Your task to perform on an android device: Open location settings Image 0: 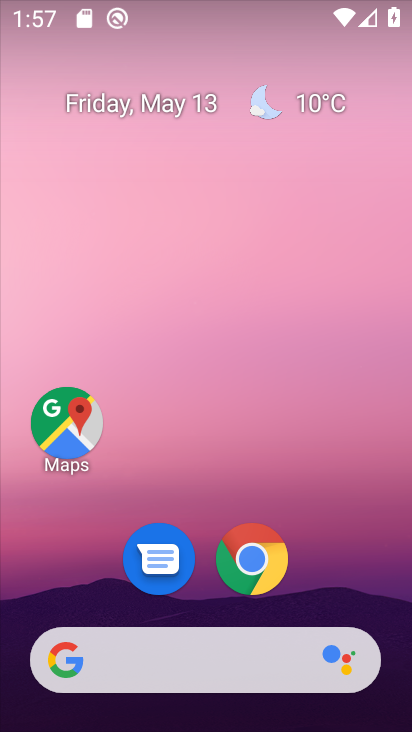
Step 0: drag from (389, 576) to (364, 363)
Your task to perform on an android device: Open location settings Image 1: 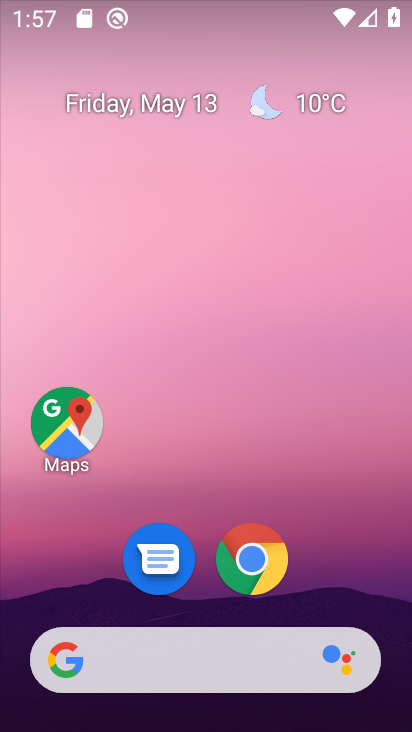
Step 1: drag from (388, 647) to (370, 375)
Your task to perform on an android device: Open location settings Image 2: 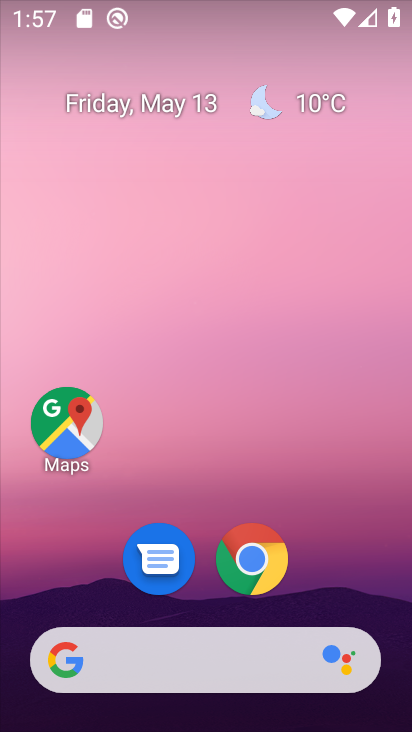
Step 2: drag from (391, 674) to (362, 296)
Your task to perform on an android device: Open location settings Image 3: 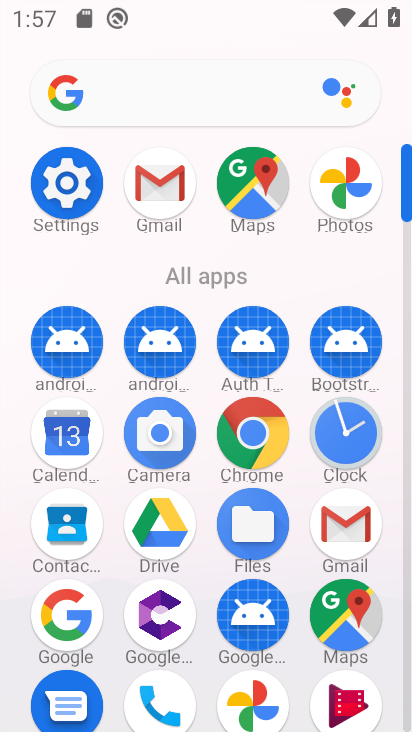
Step 3: click (73, 187)
Your task to perform on an android device: Open location settings Image 4: 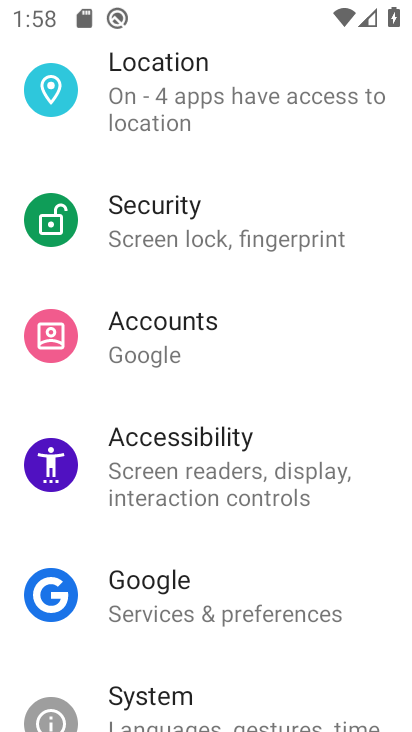
Step 4: drag from (356, 644) to (411, 307)
Your task to perform on an android device: Open location settings Image 5: 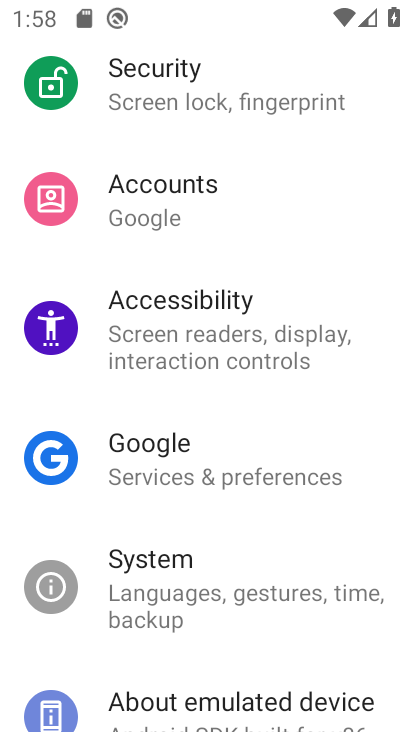
Step 5: drag from (384, 662) to (383, 428)
Your task to perform on an android device: Open location settings Image 6: 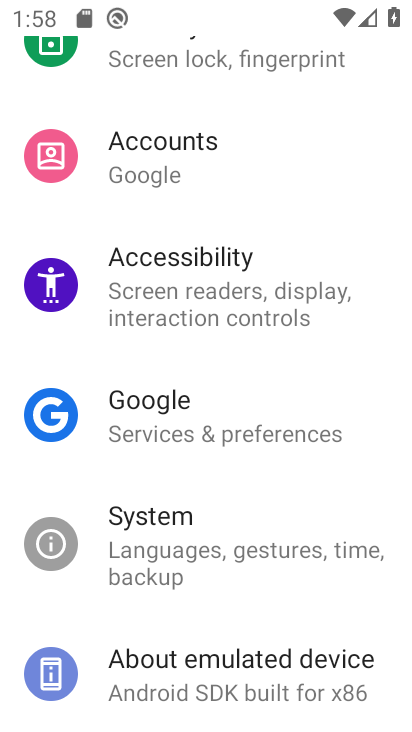
Step 6: drag from (358, 185) to (368, 439)
Your task to perform on an android device: Open location settings Image 7: 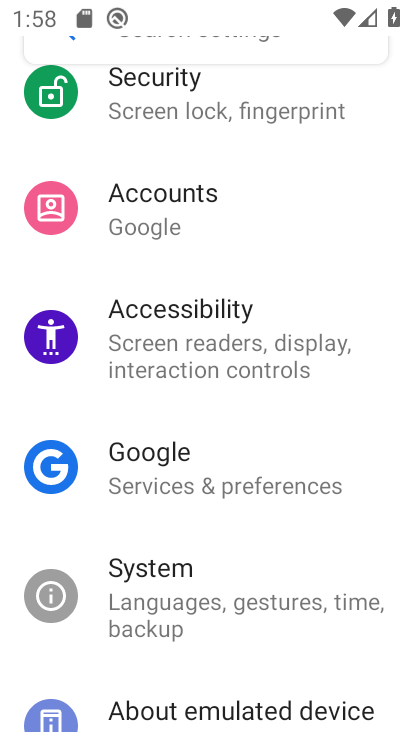
Step 7: drag from (367, 477) to (372, 512)
Your task to perform on an android device: Open location settings Image 8: 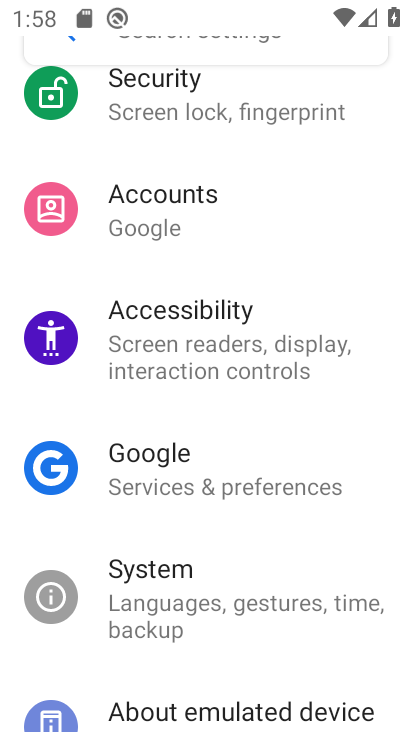
Step 8: drag from (372, 114) to (384, 488)
Your task to perform on an android device: Open location settings Image 9: 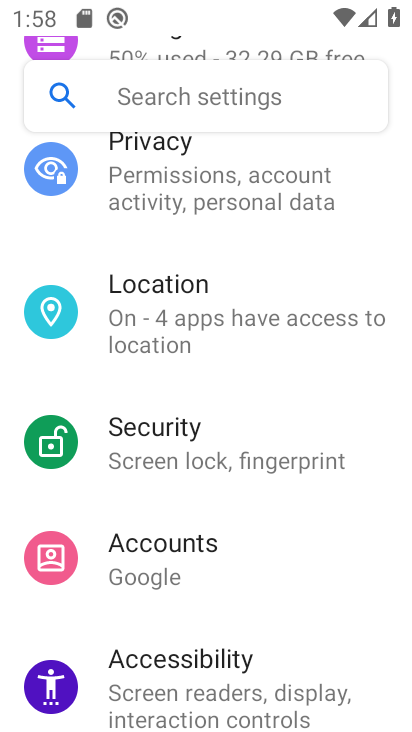
Step 9: drag from (384, 144) to (407, 243)
Your task to perform on an android device: Open location settings Image 10: 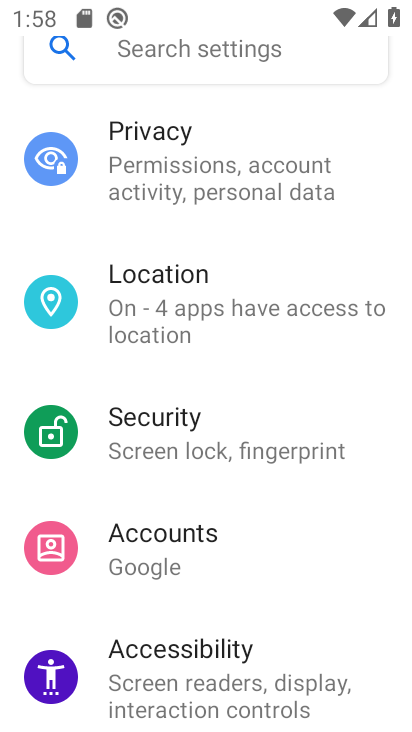
Step 10: drag from (369, 227) to (366, 607)
Your task to perform on an android device: Open location settings Image 11: 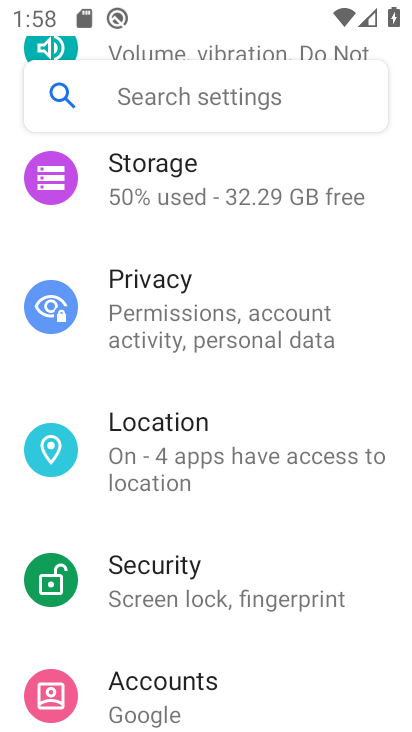
Step 11: click (118, 423)
Your task to perform on an android device: Open location settings Image 12: 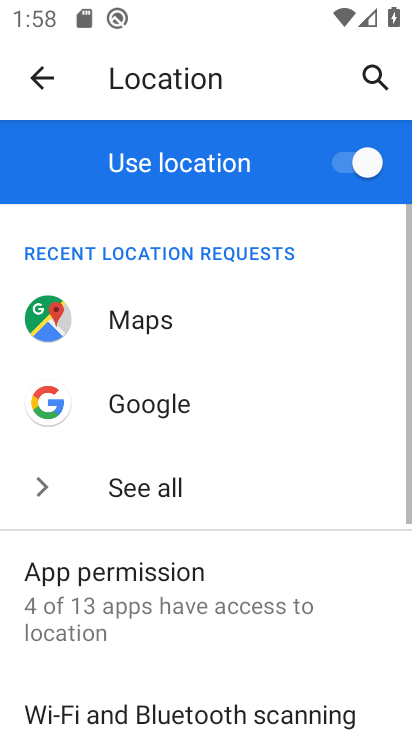
Step 12: drag from (235, 647) to (257, 391)
Your task to perform on an android device: Open location settings Image 13: 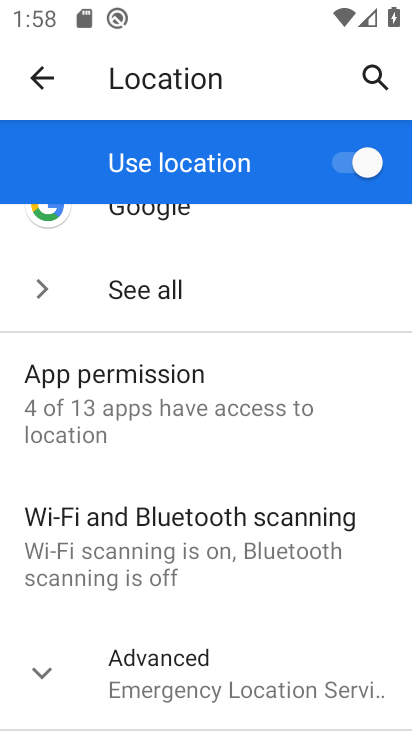
Step 13: click (44, 679)
Your task to perform on an android device: Open location settings Image 14: 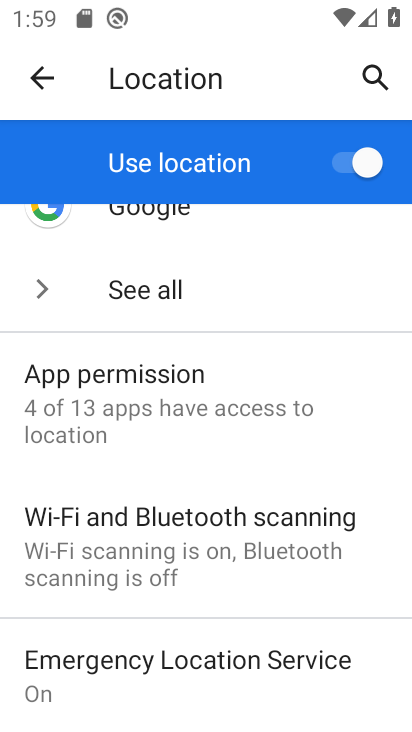
Step 14: task complete